Your task to perform on an android device: Check the news Image 0: 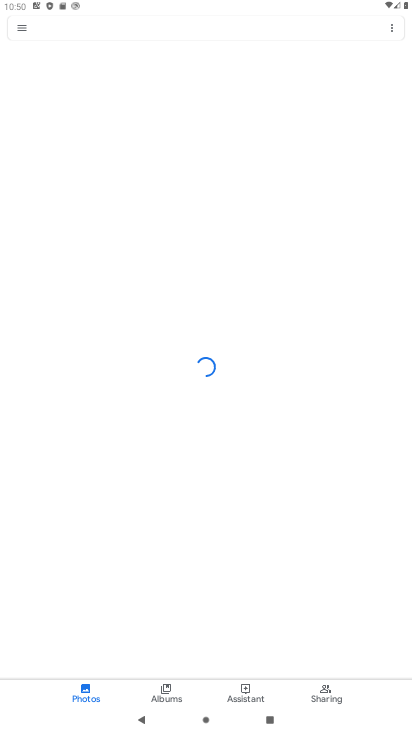
Step 0: press home button
Your task to perform on an android device: Check the news Image 1: 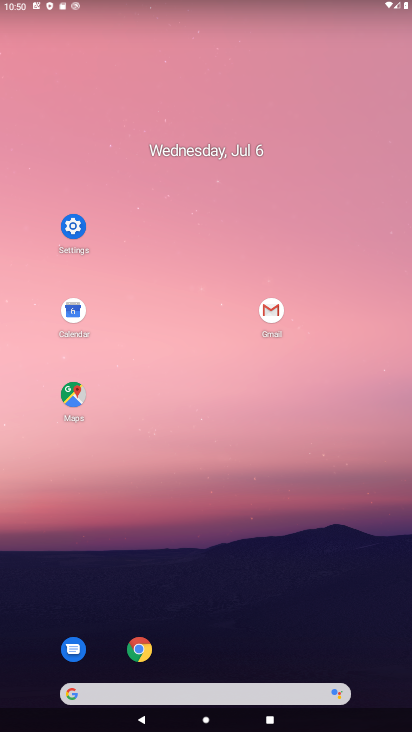
Step 1: click (146, 650)
Your task to perform on an android device: Check the news Image 2: 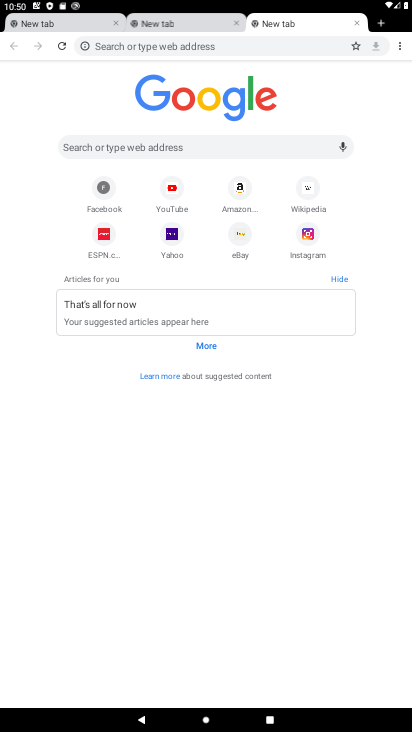
Step 2: click (211, 142)
Your task to perform on an android device: Check the news Image 3: 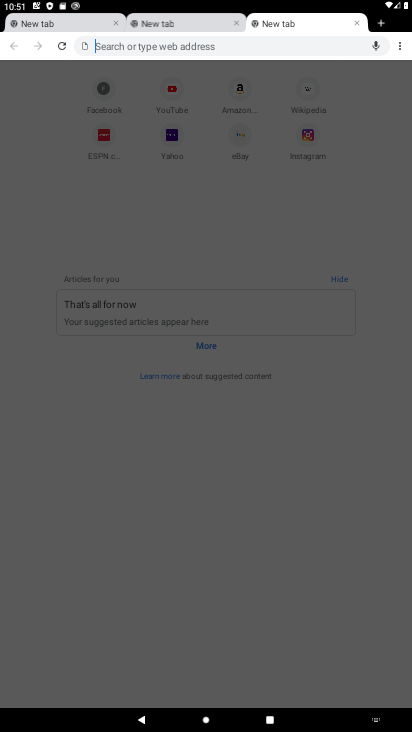
Step 3: type "news"
Your task to perform on an android device: Check the news Image 4: 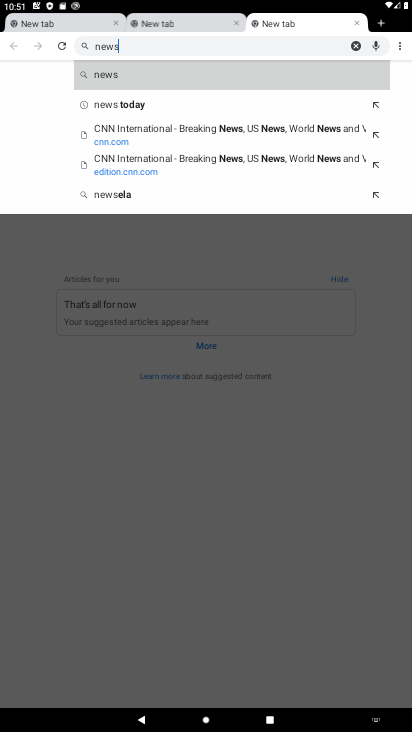
Step 4: click (187, 70)
Your task to perform on an android device: Check the news Image 5: 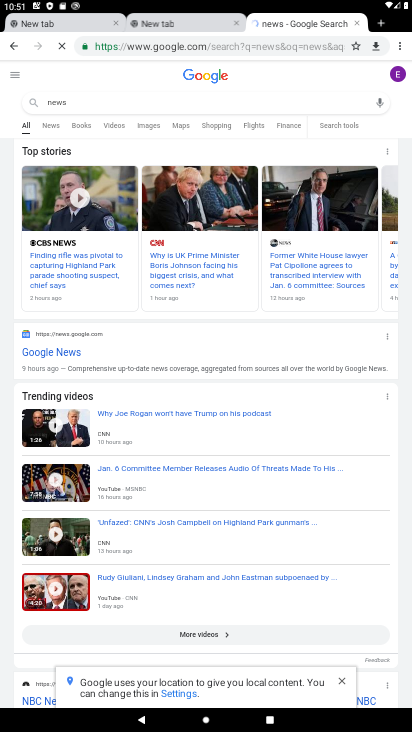
Step 5: task complete